Your task to perform on an android device: move a message to another label in the gmail app Image 0: 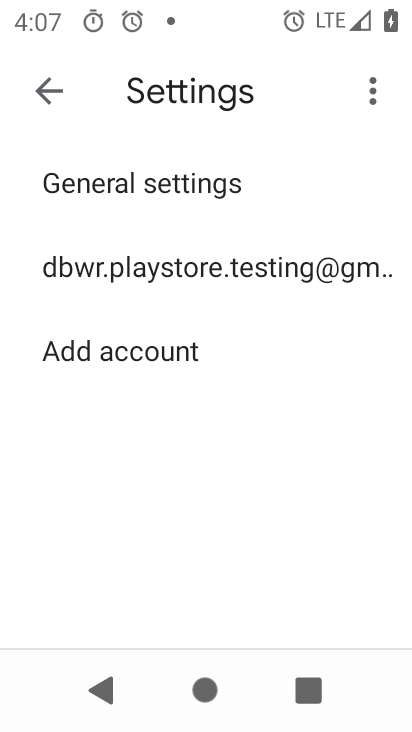
Step 0: click (41, 96)
Your task to perform on an android device: move a message to another label in the gmail app Image 1: 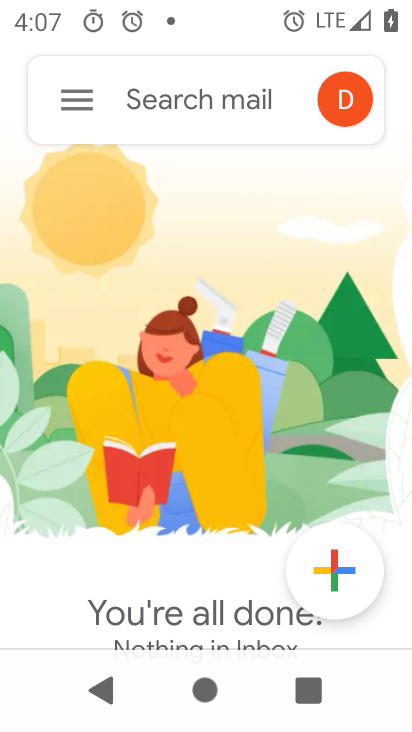
Step 1: click (80, 102)
Your task to perform on an android device: move a message to another label in the gmail app Image 2: 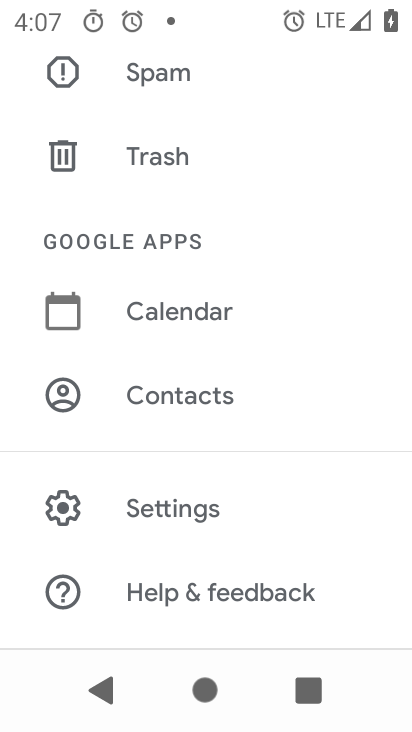
Step 2: drag from (267, 381) to (265, 150)
Your task to perform on an android device: move a message to another label in the gmail app Image 3: 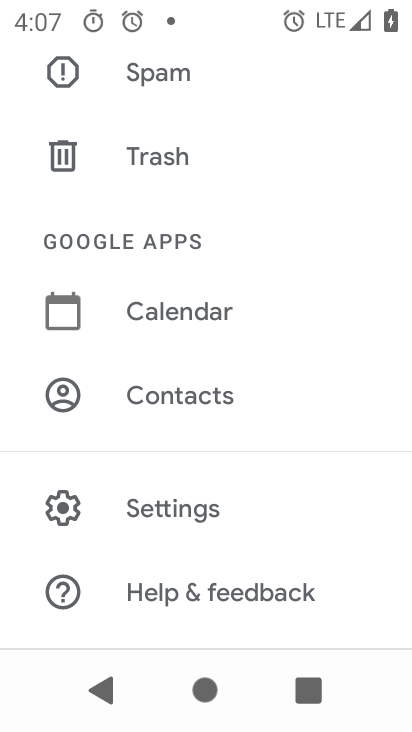
Step 3: drag from (247, 242) to (254, 507)
Your task to perform on an android device: move a message to another label in the gmail app Image 4: 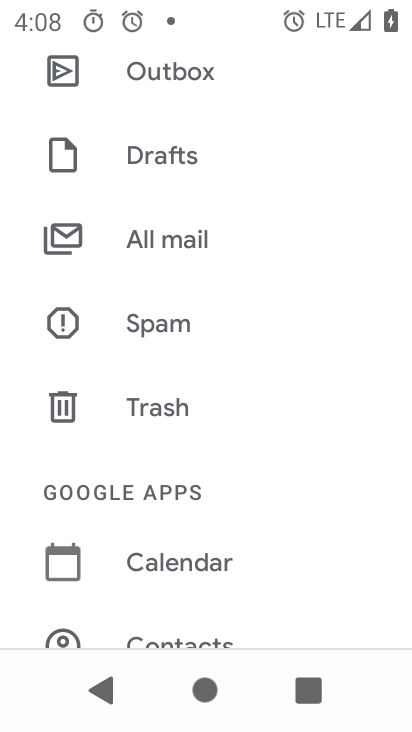
Step 4: click (155, 243)
Your task to perform on an android device: move a message to another label in the gmail app Image 5: 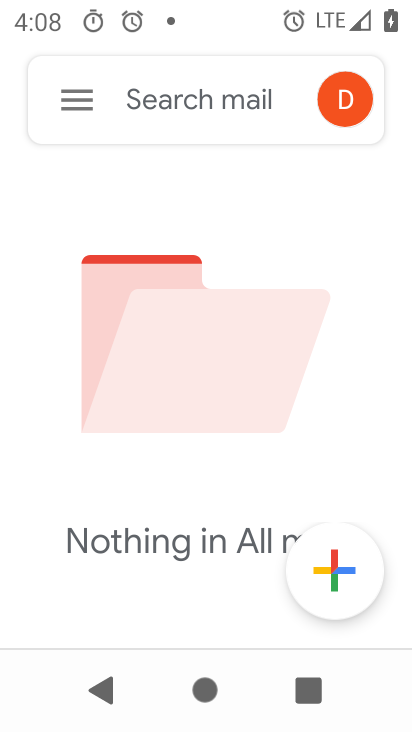
Step 5: task complete